Your task to perform on an android device: Go to ESPN.com Image 0: 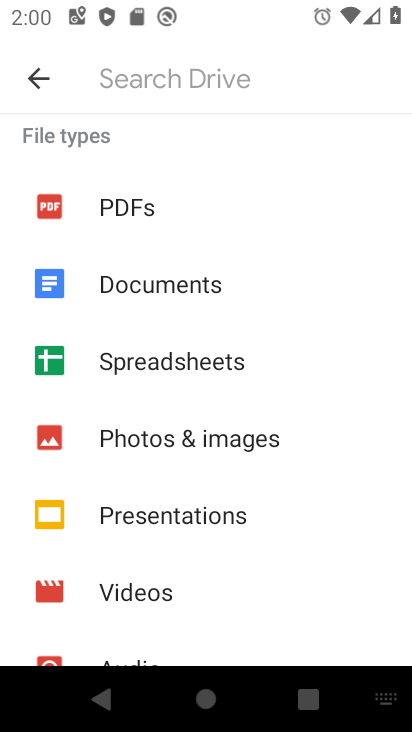
Step 0: press home button
Your task to perform on an android device: Go to ESPN.com Image 1: 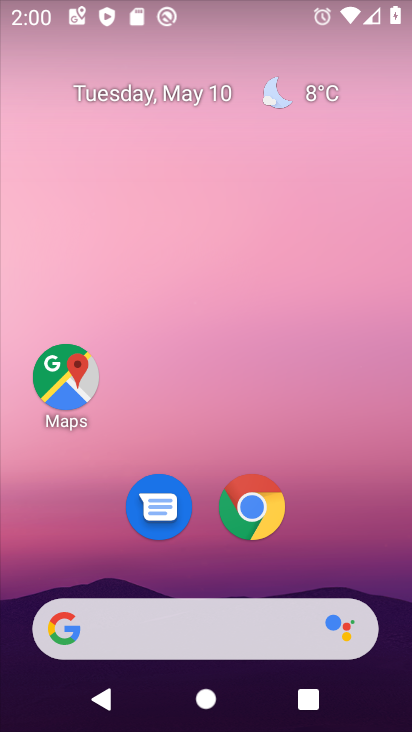
Step 1: click (252, 504)
Your task to perform on an android device: Go to ESPN.com Image 2: 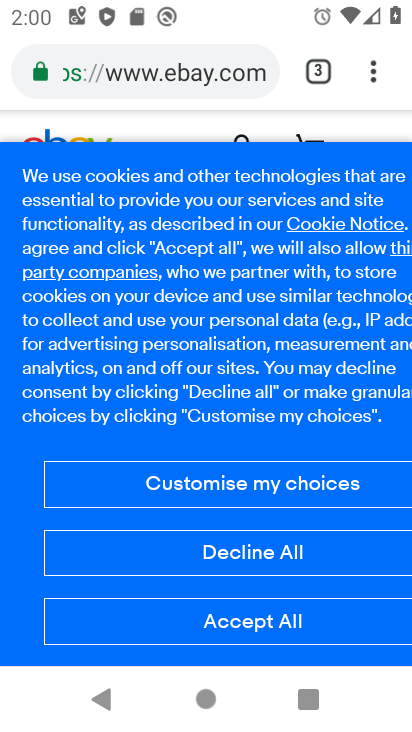
Step 2: click (374, 77)
Your task to perform on an android device: Go to ESPN.com Image 3: 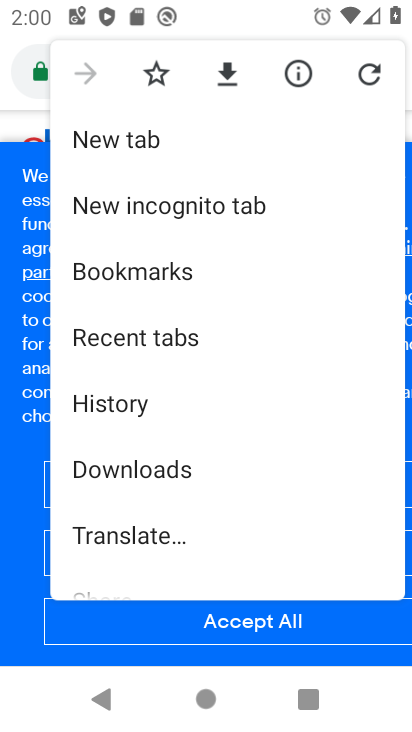
Step 3: click (125, 140)
Your task to perform on an android device: Go to ESPN.com Image 4: 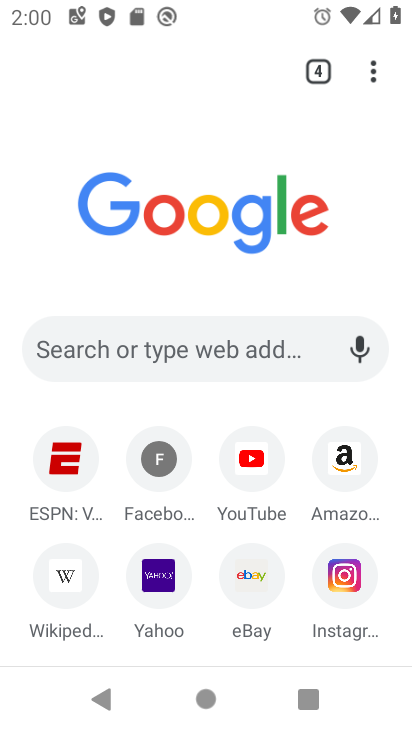
Step 4: click (214, 362)
Your task to perform on an android device: Go to ESPN.com Image 5: 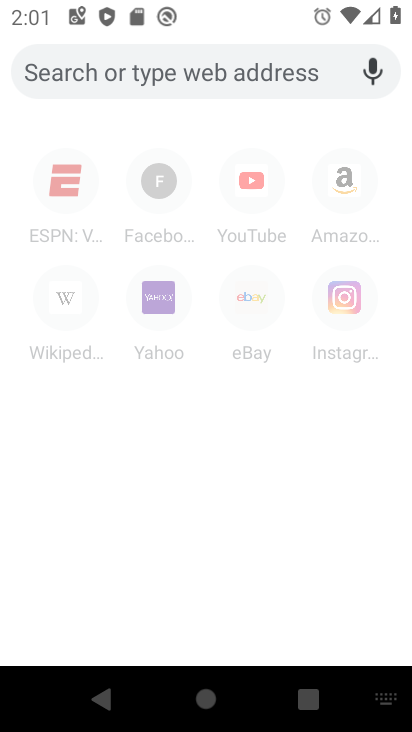
Step 5: type "ESPN.com"
Your task to perform on an android device: Go to ESPN.com Image 6: 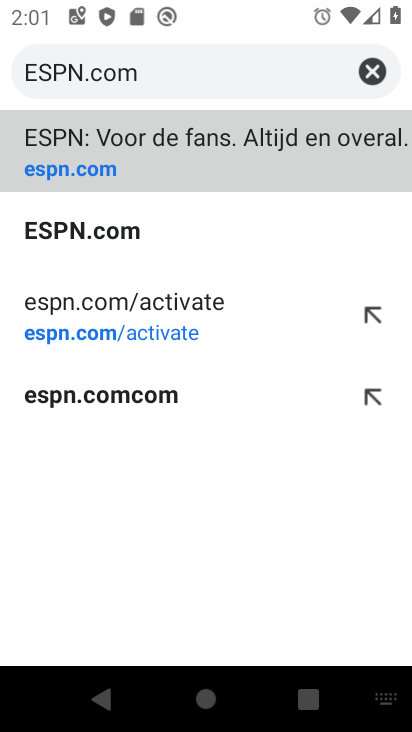
Step 6: click (99, 149)
Your task to perform on an android device: Go to ESPN.com Image 7: 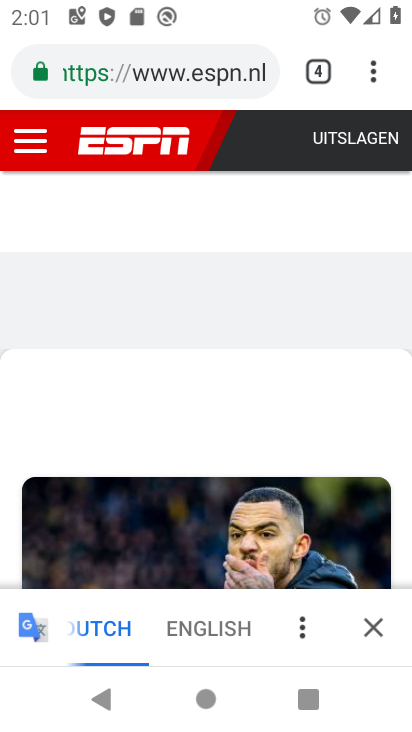
Step 7: task complete